Your task to perform on an android device: What's the weather going to be tomorrow? Image 0: 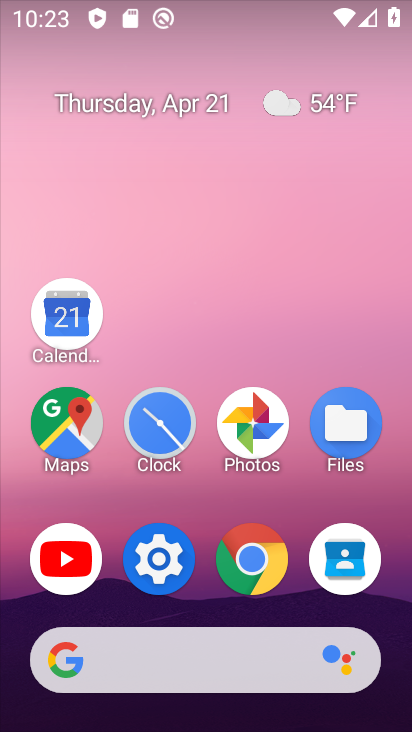
Step 0: click (280, 102)
Your task to perform on an android device: What's the weather going to be tomorrow? Image 1: 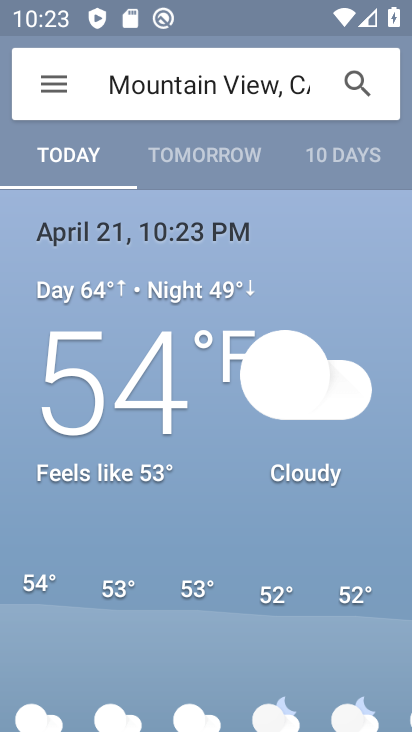
Step 1: click (189, 147)
Your task to perform on an android device: What's the weather going to be tomorrow? Image 2: 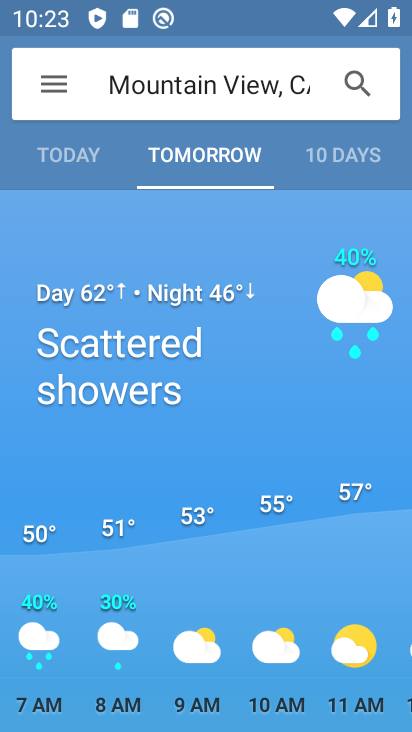
Step 2: task complete